Your task to perform on an android device: turn off wifi Image 0: 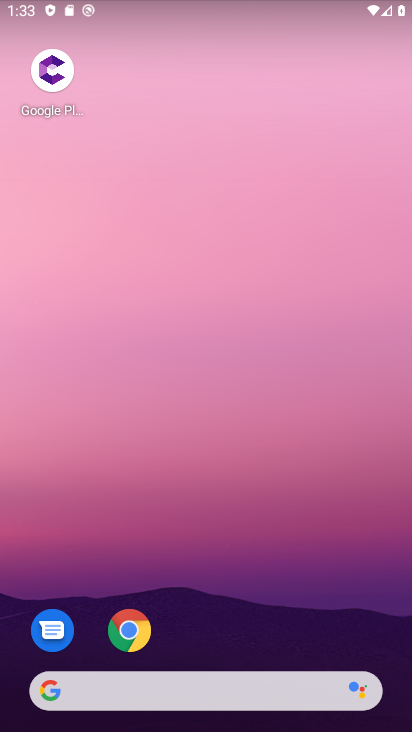
Step 0: drag from (280, 485) to (264, 54)
Your task to perform on an android device: turn off wifi Image 1: 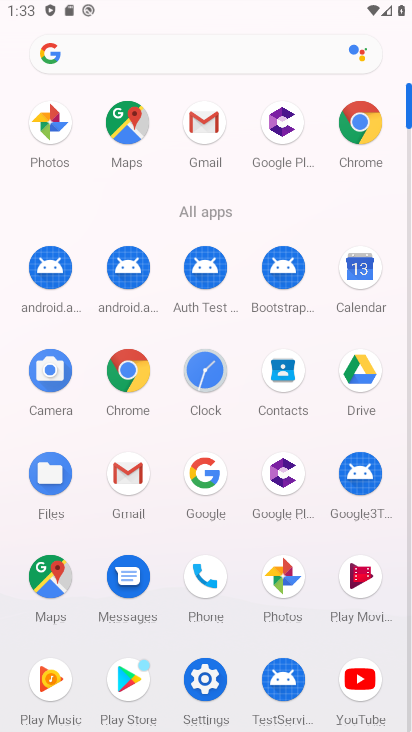
Step 1: click (209, 671)
Your task to perform on an android device: turn off wifi Image 2: 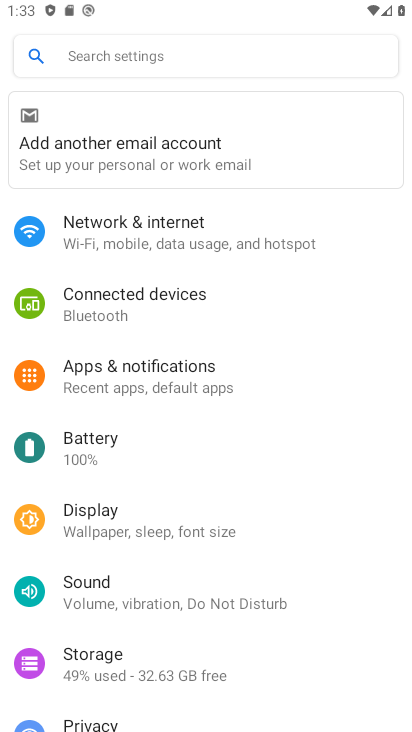
Step 2: click (219, 266)
Your task to perform on an android device: turn off wifi Image 3: 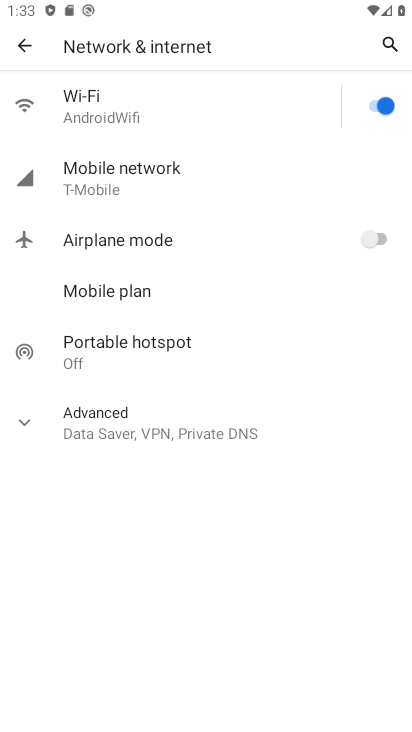
Step 3: click (384, 103)
Your task to perform on an android device: turn off wifi Image 4: 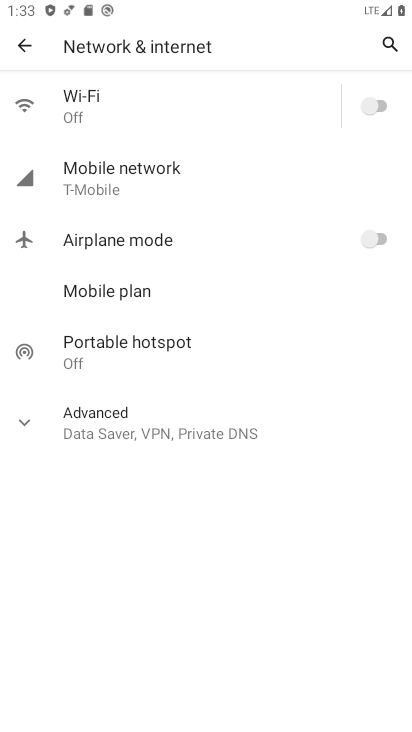
Step 4: task complete